Your task to perform on an android device: Open network settings Image 0: 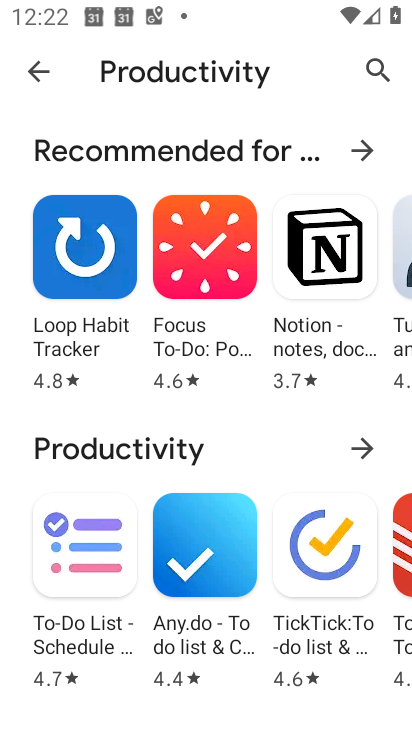
Step 0: press home button
Your task to perform on an android device: Open network settings Image 1: 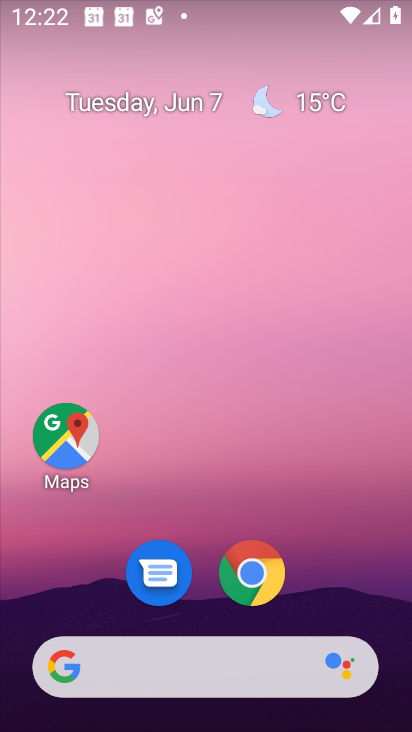
Step 1: drag from (369, 536) to (363, 128)
Your task to perform on an android device: Open network settings Image 2: 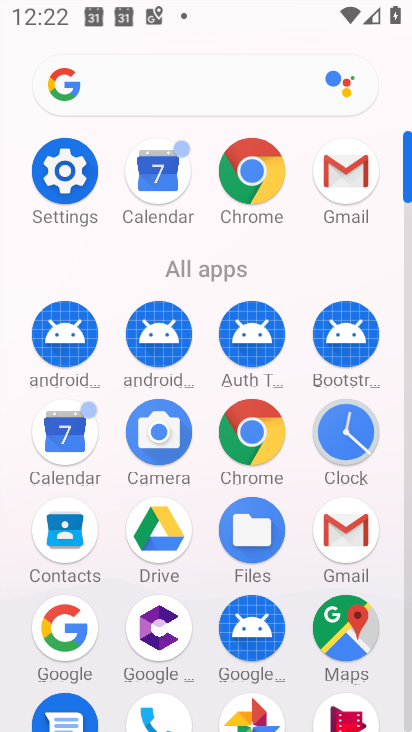
Step 2: click (59, 182)
Your task to perform on an android device: Open network settings Image 3: 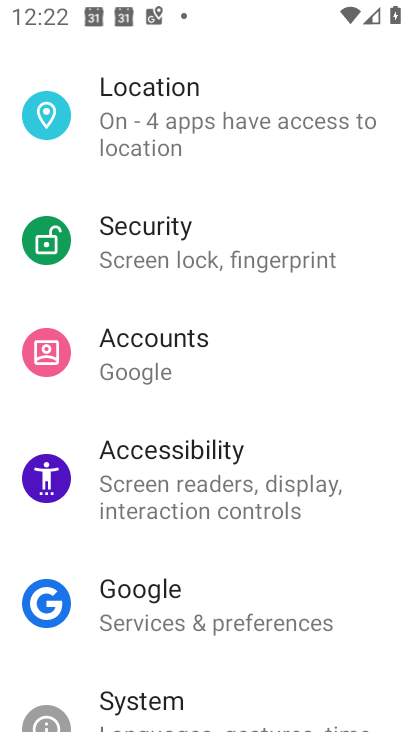
Step 3: drag from (375, 147) to (281, 722)
Your task to perform on an android device: Open network settings Image 4: 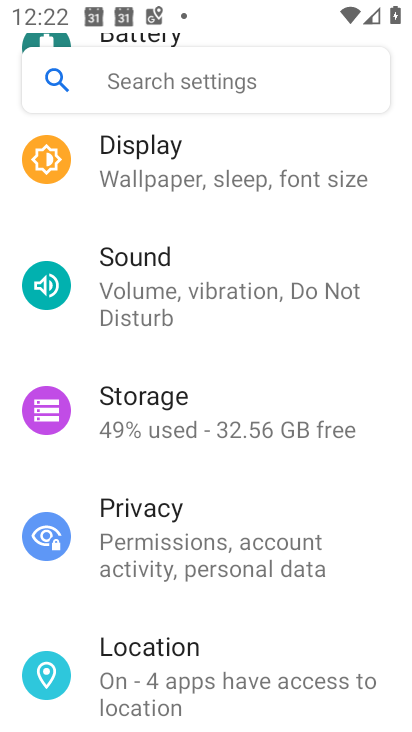
Step 4: drag from (365, 133) to (289, 723)
Your task to perform on an android device: Open network settings Image 5: 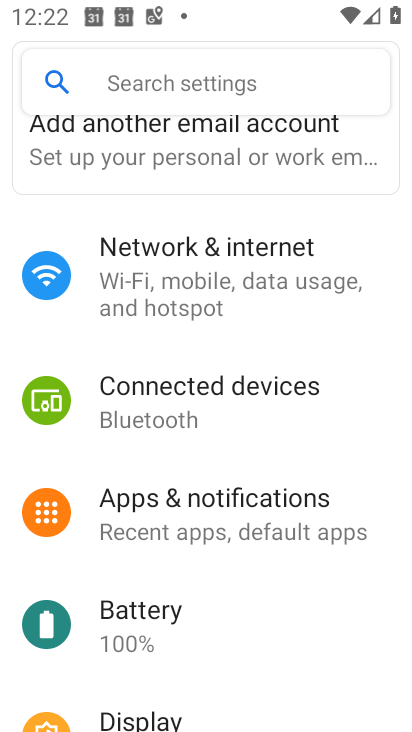
Step 5: click (237, 280)
Your task to perform on an android device: Open network settings Image 6: 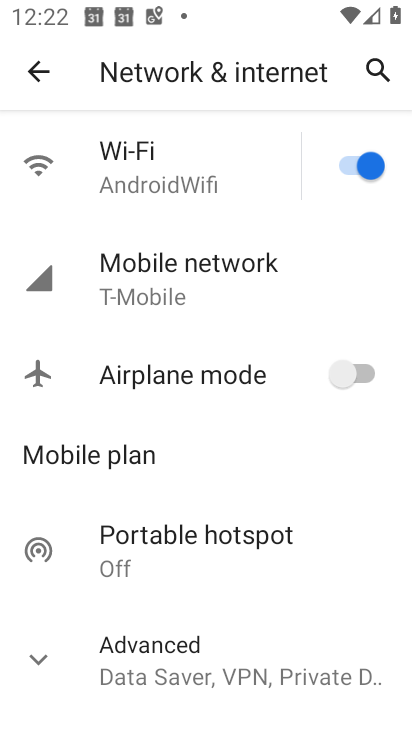
Step 6: task complete